Your task to perform on an android device: turn on the 12-hour format for clock Image 0: 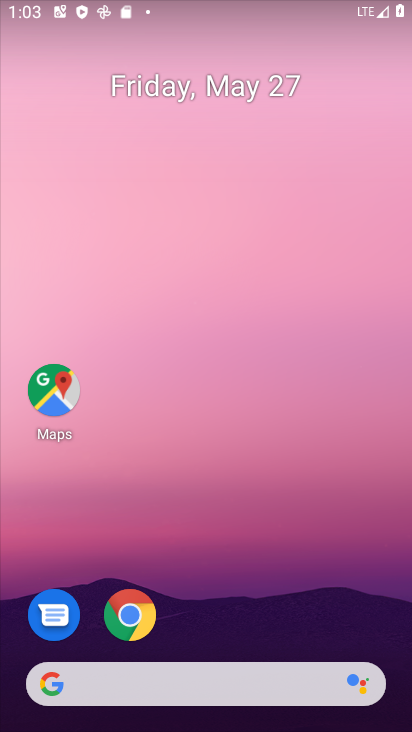
Step 0: drag from (275, 595) to (313, 66)
Your task to perform on an android device: turn on the 12-hour format for clock Image 1: 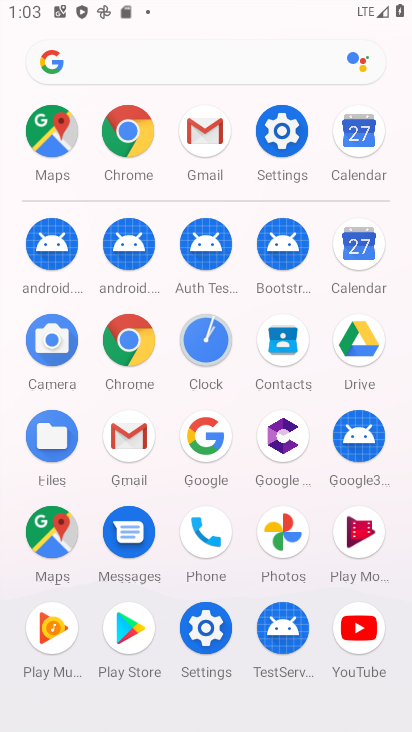
Step 1: click (215, 353)
Your task to perform on an android device: turn on the 12-hour format for clock Image 2: 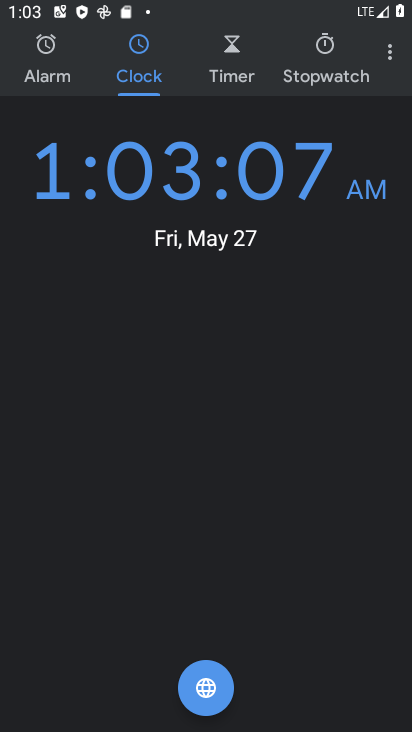
Step 2: click (392, 41)
Your task to perform on an android device: turn on the 12-hour format for clock Image 3: 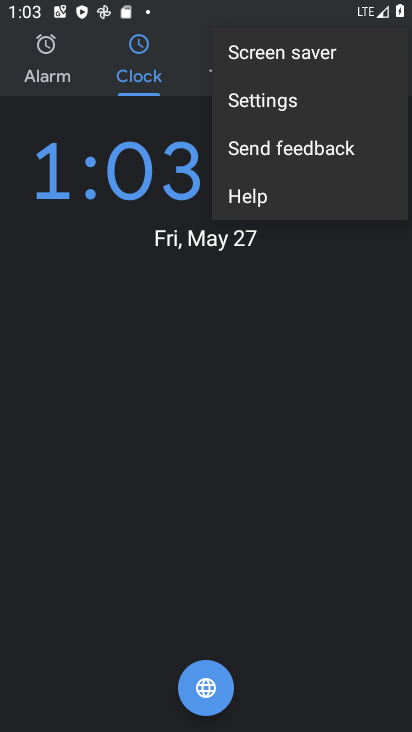
Step 3: click (277, 99)
Your task to perform on an android device: turn on the 12-hour format for clock Image 4: 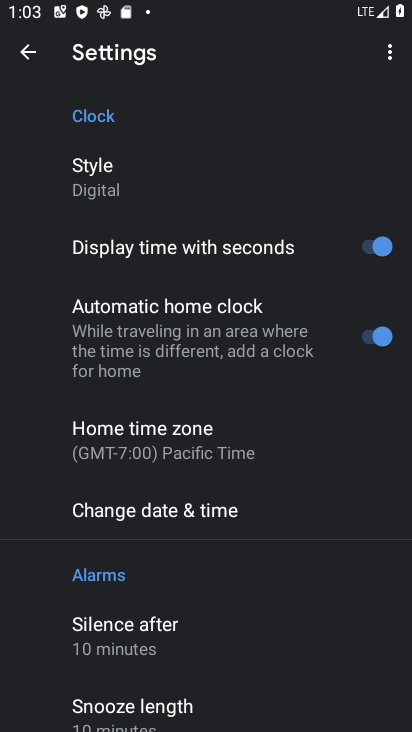
Step 4: click (161, 501)
Your task to perform on an android device: turn on the 12-hour format for clock Image 5: 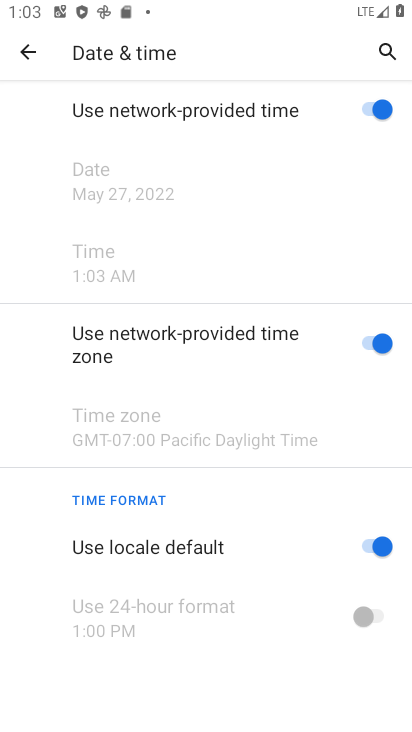
Step 5: click (382, 613)
Your task to perform on an android device: turn on the 12-hour format for clock Image 6: 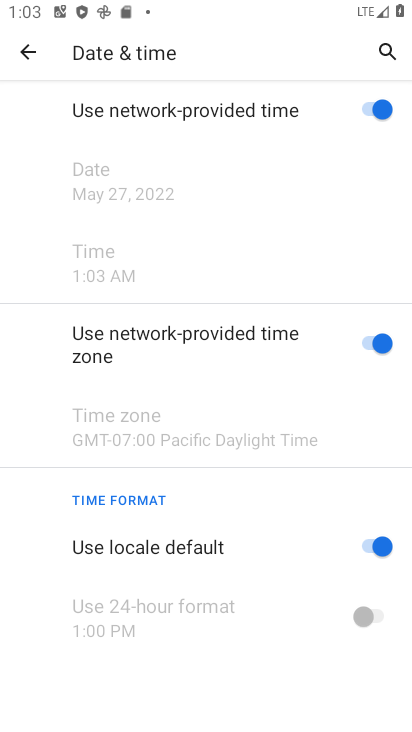
Step 6: click (365, 549)
Your task to perform on an android device: turn on the 12-hour format for clock Image 7: 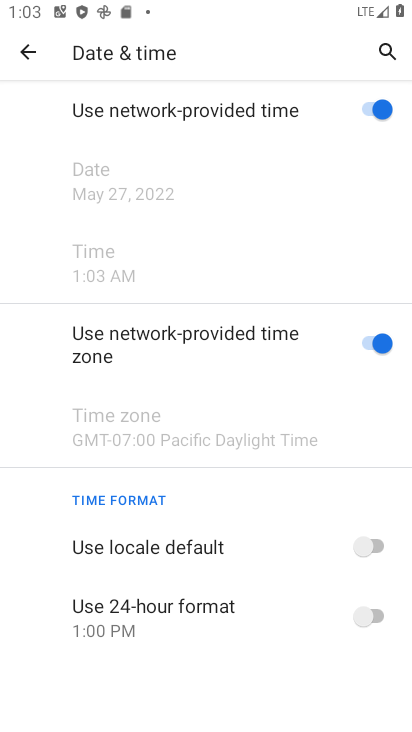
Step 7: task complete